Your task to perform on an android device: toggle wifi Image 0: 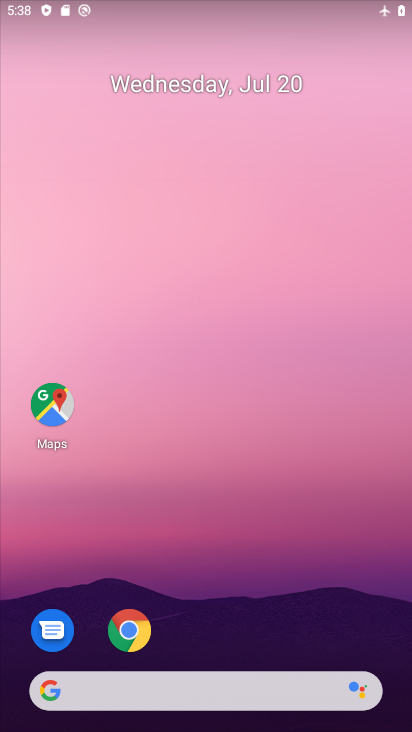
Step 0: drag from (267, 697) to (332, 20)
Your task to perform on an android device: toggle wifi Image 1: 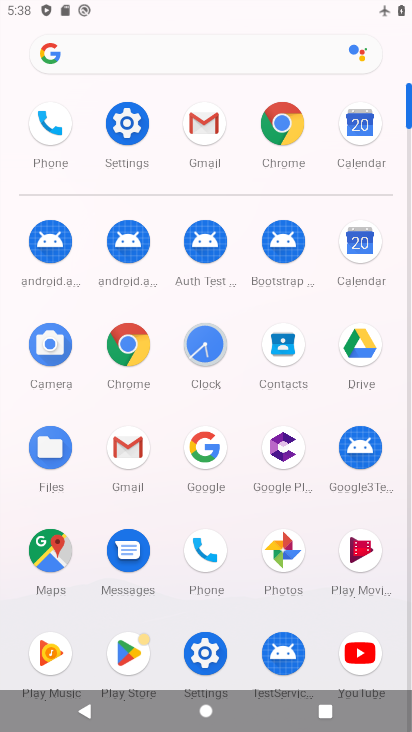
Step 1: click (142, 122)
Your task to perform on an android device: toggle wifi Image 2: 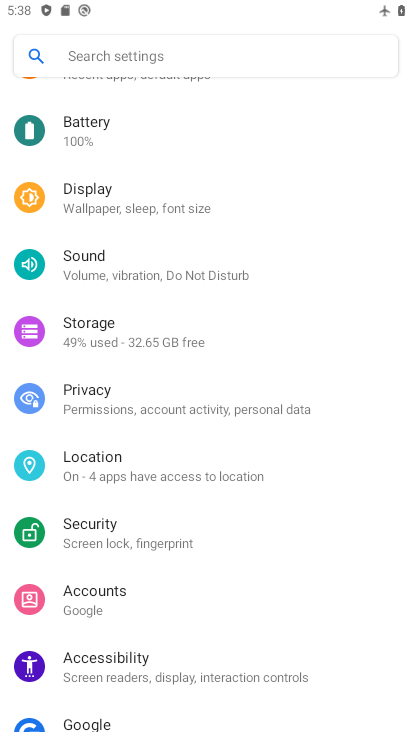
Step 2: drag from (135, 169) to (199, 658)
Your task to perform on an android device: toggle wifi Image 3: 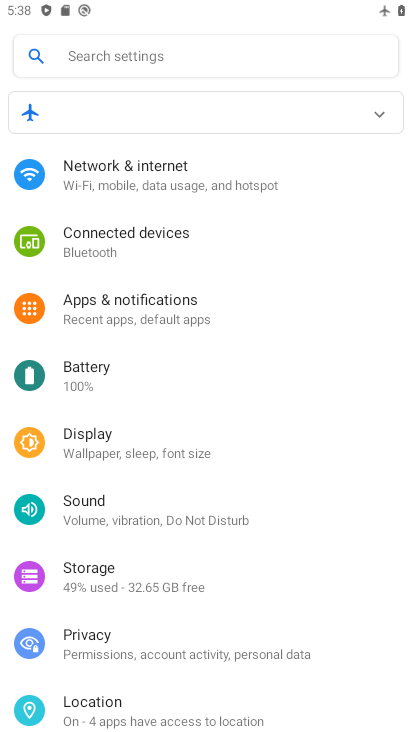
Step 3: click (144, 176)
Your task to perform on an android device: toggle wifi Image 4: 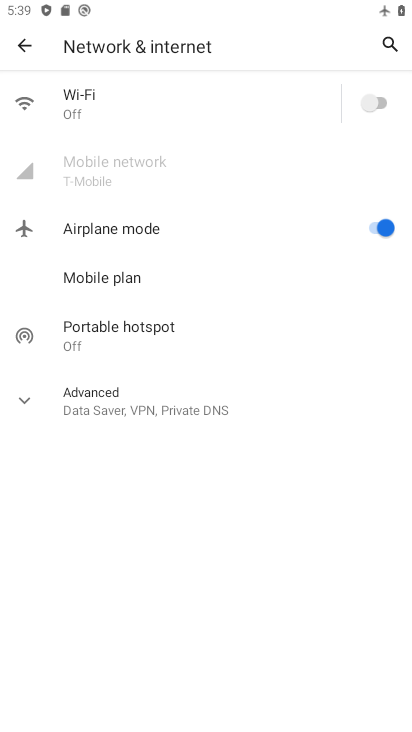
Step 4: click (379, 101)
Your task to perform on an android device: toggle wifi Image 5: 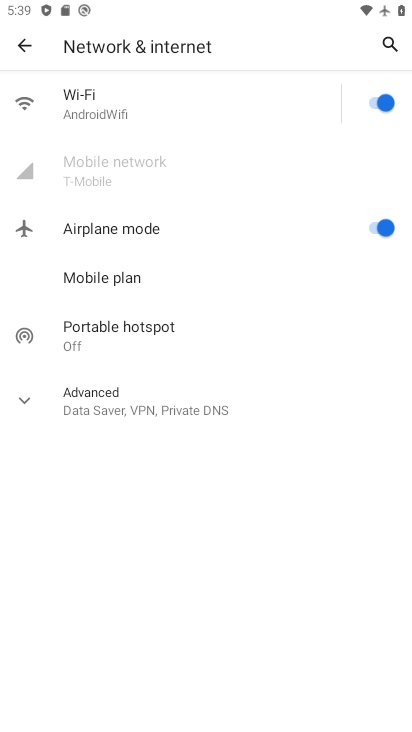
Step 5: task complete